Your task to perform on an android device: Go to wifi settings Image 0: 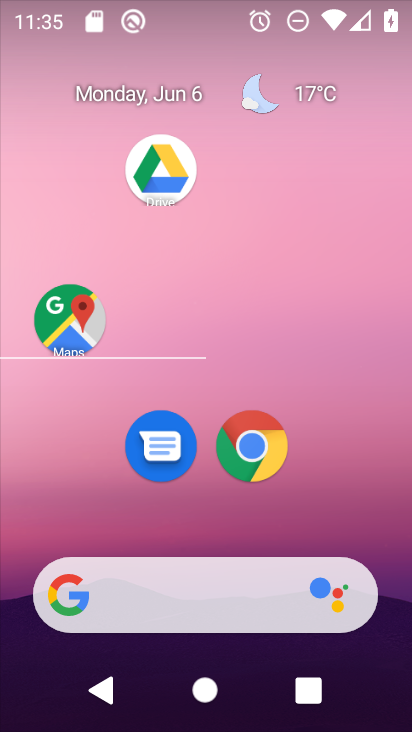
Step 0: drag from (173, 2) to (298, 374)
Your task to perform on an android device: Go to wifi settings Image 1: 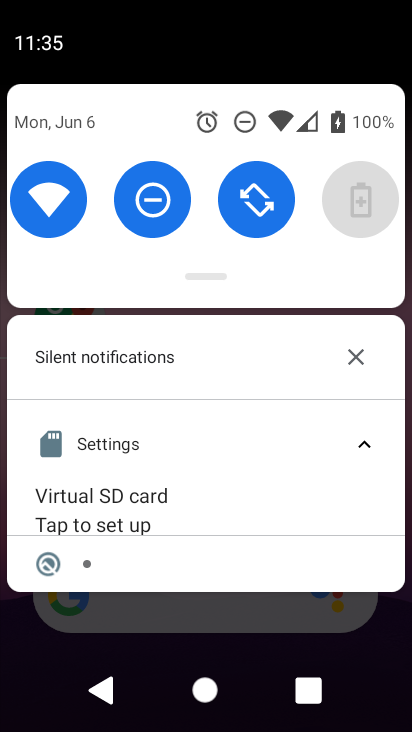
Step 1: click (55, 183)
Your task to perform on an android device: Go to wifi settings Image 2: 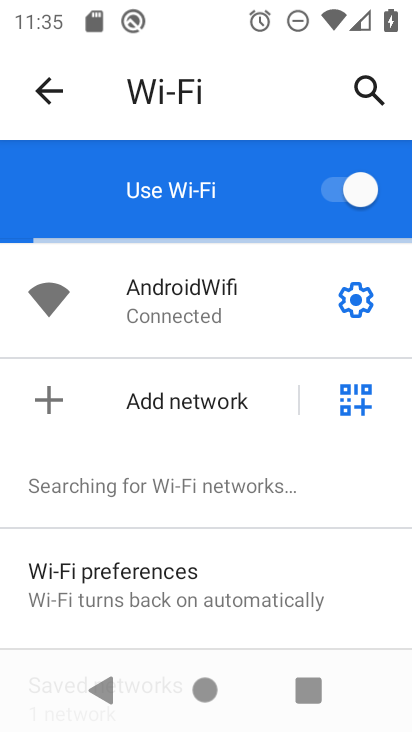
Step 2: task complete